Your task to perform on an android device: Open Google Chrome Image 0: 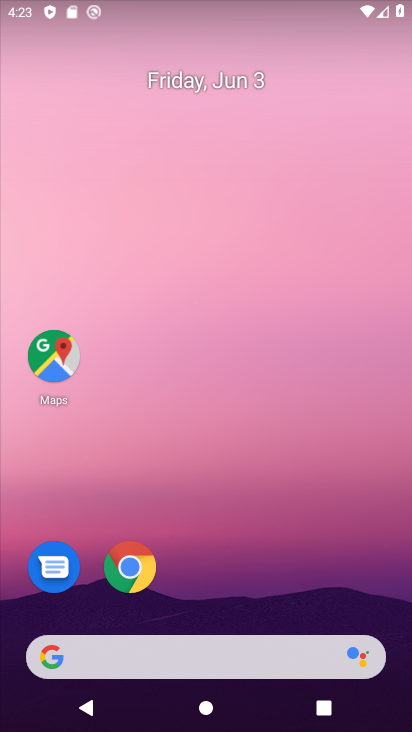
Step 0: click (130, 568)
Your task to perform on an android device: Open Google Chrome Image 1: 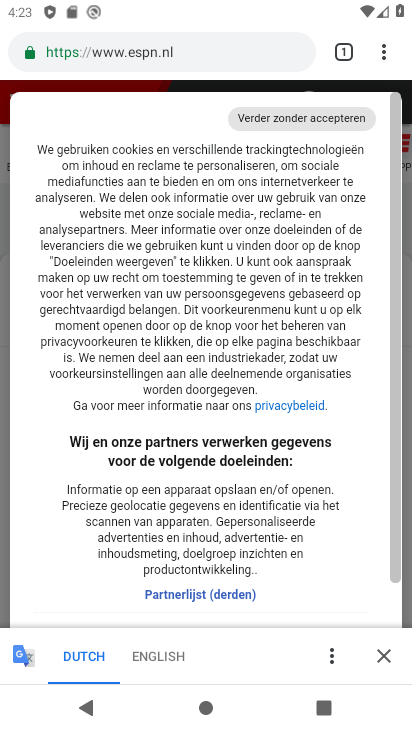
Step 1: task complete